Your task to perform on an android device: open the mobile data screen to see how much data has been used Image 0: 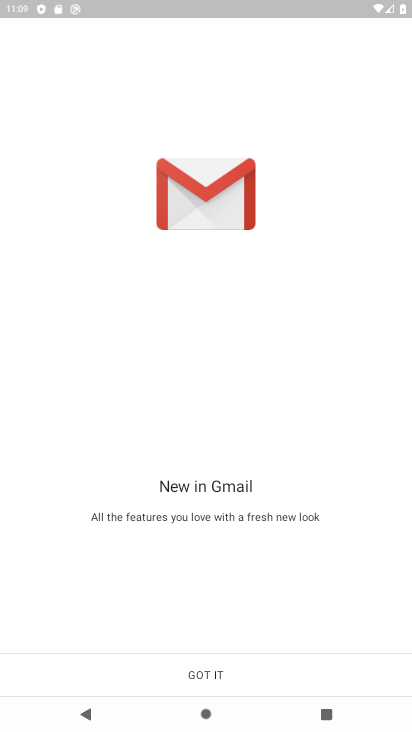
Step 0: press home button
Your task to perform on an android device: open the mobile data screen to see how much data has been used Image 1: 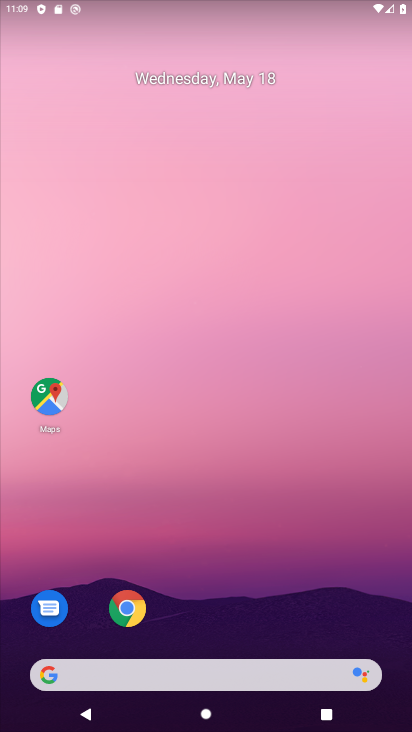
Step 1: drag from (257, 597) to (218, 88)
Your task to perform on an android device: open the mobile data screen to see how much data has been used Image 2: 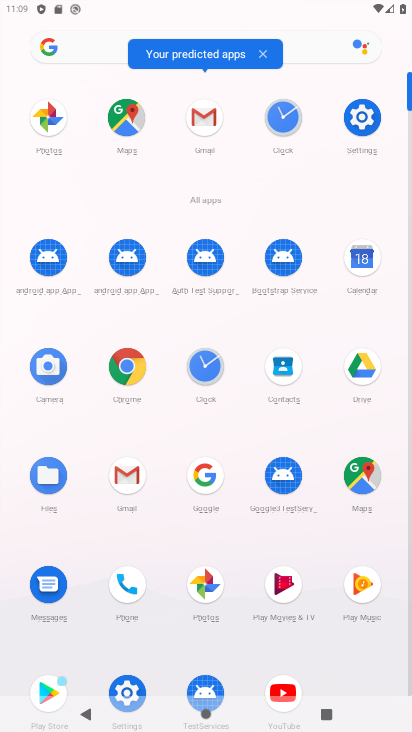
Step 2: click (366, 123)
Your task to perform on an android device: open the mobile data screen to see how much data has been used Image 3: 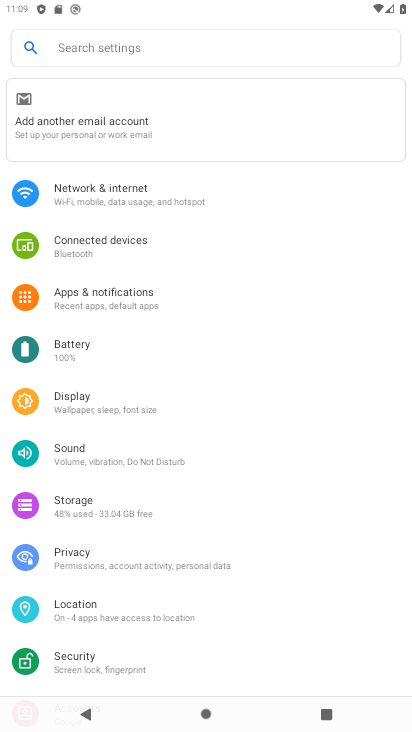
Step 3: click (158, 196)
Your task to perform on an android device: open the mobile data screen to see how much data has been used Image 4: 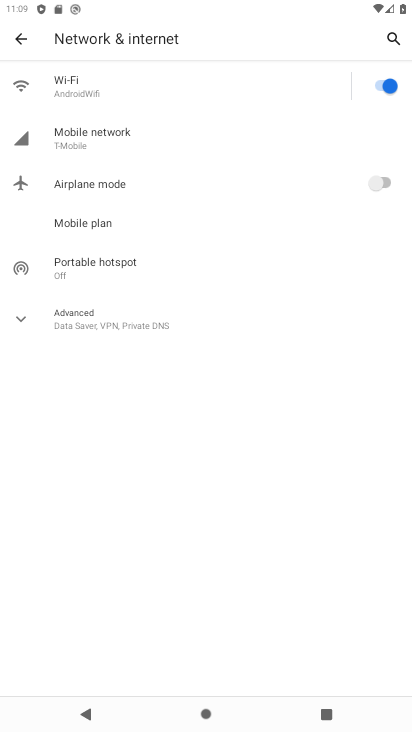
Step 4: click (104, 140)
Your task to perform on an android device: open the mobile data screen to see how much data has been used Image 5: 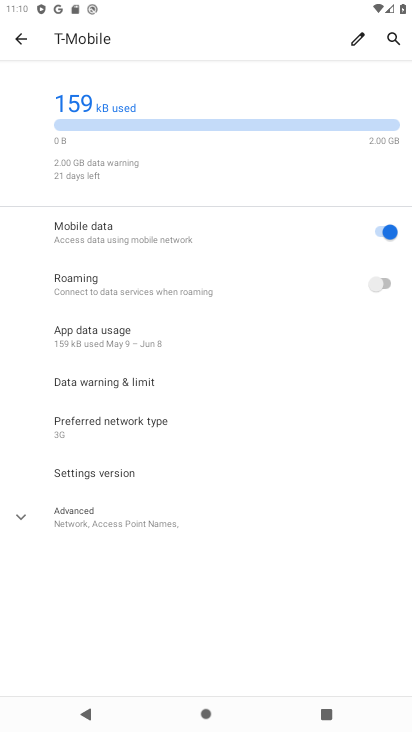
Step 5: click (146, 328)
Your task to perform on an android device: open the mobile data screen to see how much data has been used Image 6: 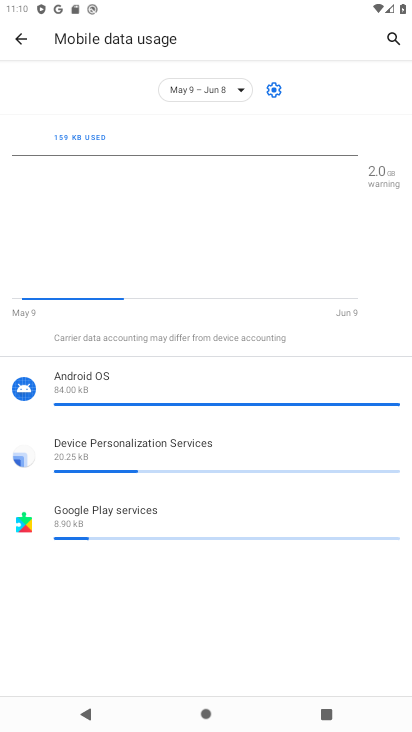
Step 6: task complete